Your task to perform on an android device: set an alarm Image 0: 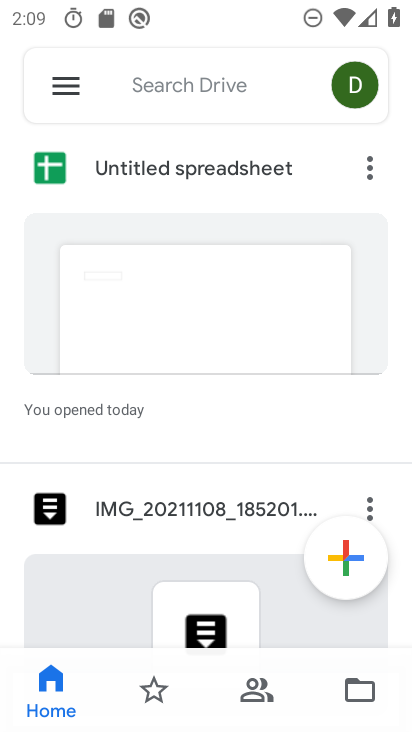
Step 0: press home button
Your task to perform on an android device: set an alarm Image 1: 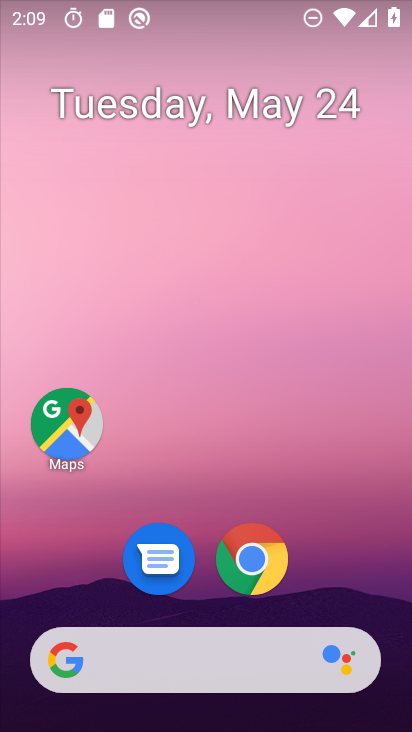
Step 1: drag from (397, 691) to (366, 194)
Your task to perform on an android device: set an alarm Image 2: 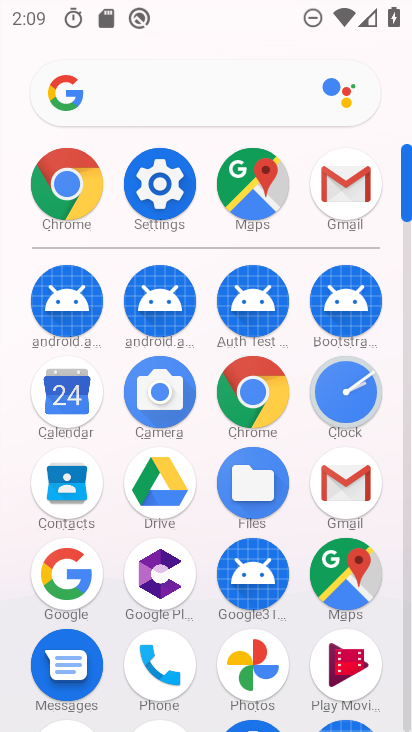
Step 2: click (340, 394)
Your task to perform on an android device: set an alarm Image 3: 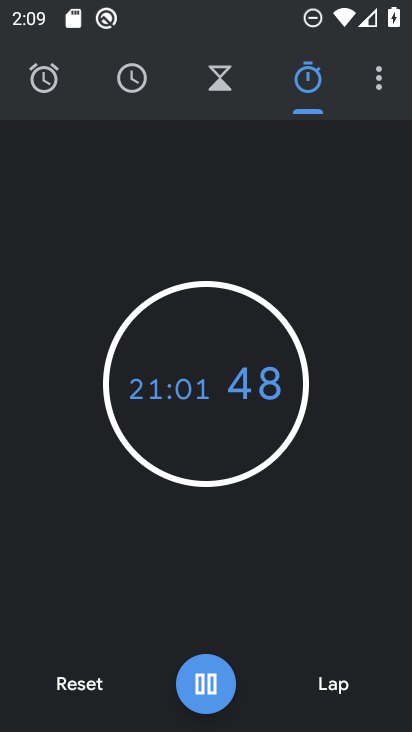
Step 3: click (49, 81)
Your task to perform on an android device: set an alarm Image 4: 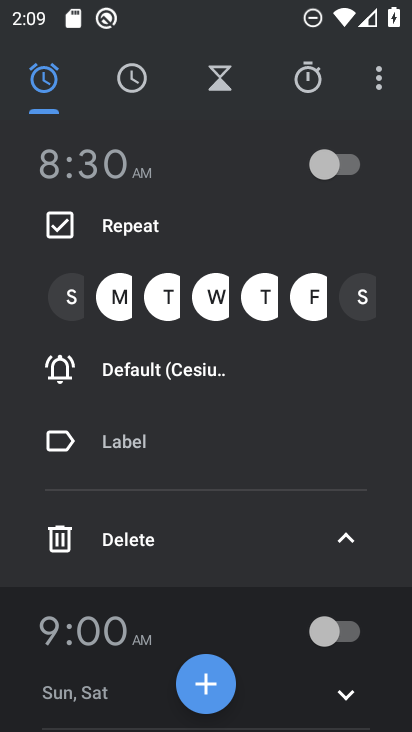
Step 4: click (342, 167)
Your task to perform on an android device: set an alarm Image 5: 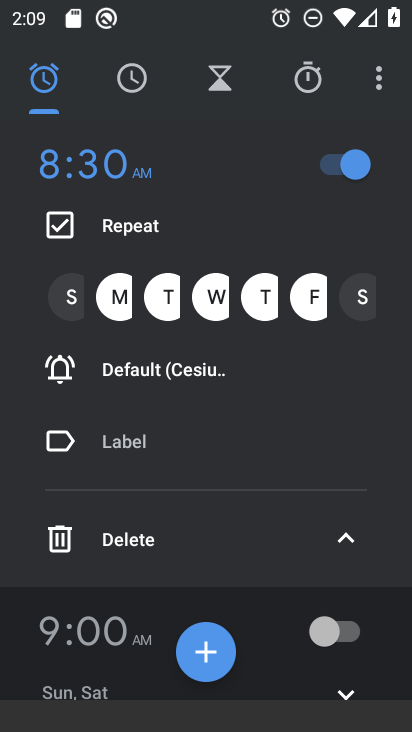
Step 5: click (346, 530)
Your task to perform on an android device: set an alarm Image 6: 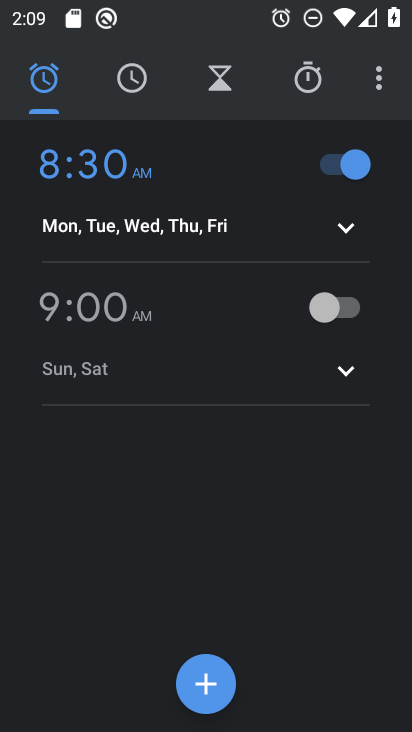
Step 6: task complete